Your task to perform on an android device: toggle notification dots Image 0: 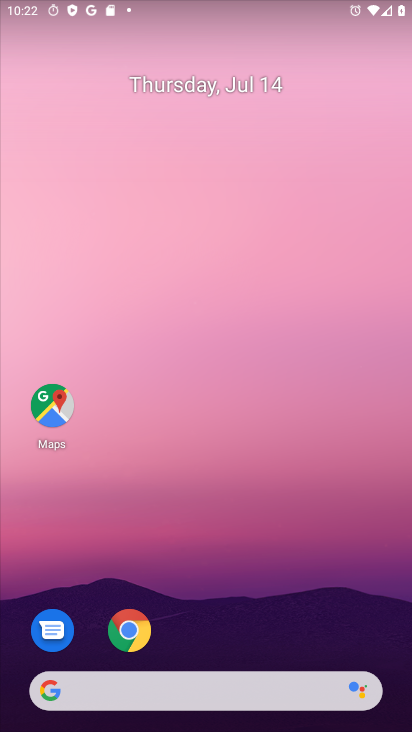
Step 0: drag from (25, 712) to (120, 32)
Your task to perform on an android device: toggle notification dots Image 1: 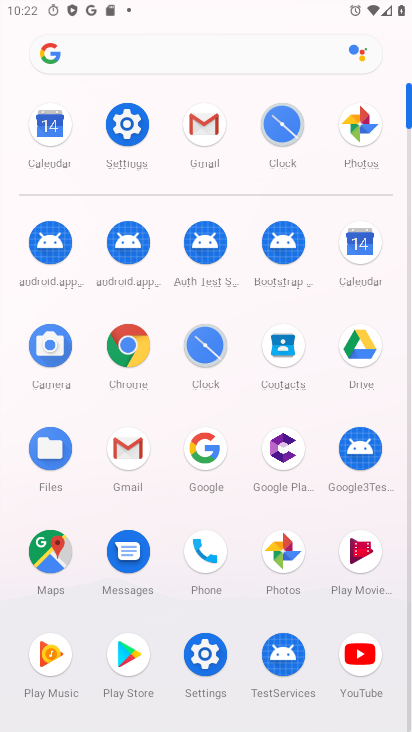
Step 1: click (203, 643)
Your task to perform on an android device: toggle notification dots Image 2: 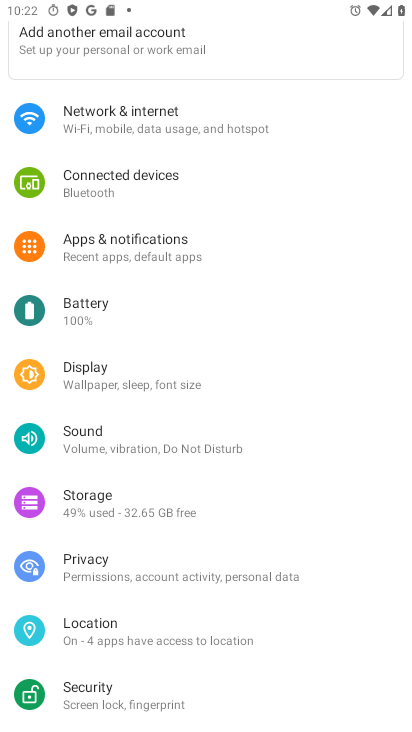
Step 2: click (171, 226)
Your task to perform on an android device: toggle notification dots Image 3: 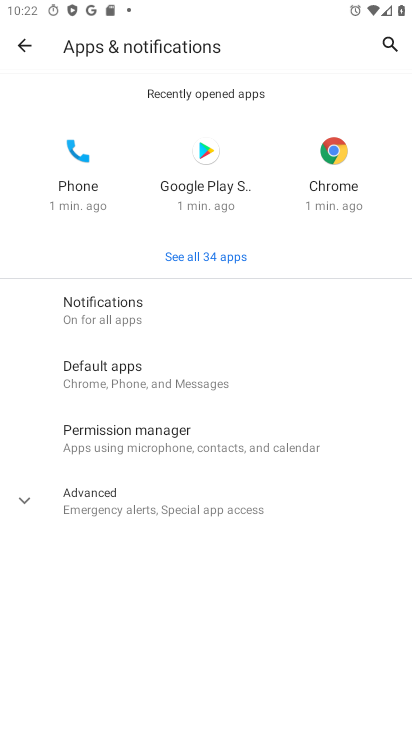
Step 3: click (119, 491)
Your task to perform on an android device: toggle notification dots Image 4: 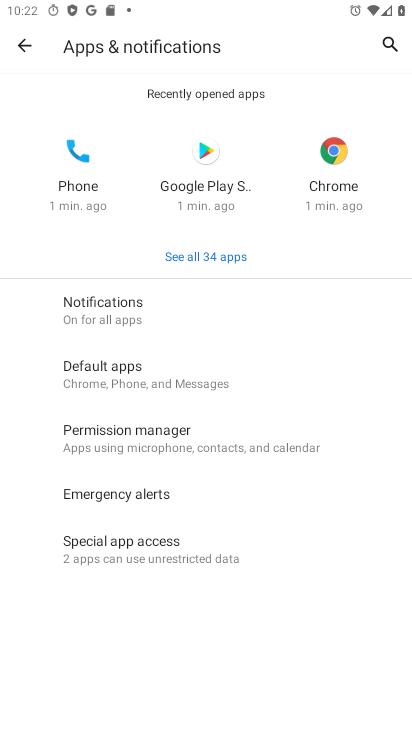
Step 4: click (131, 317)
Your task to perform on an android device: toggle notification dots Image 5: 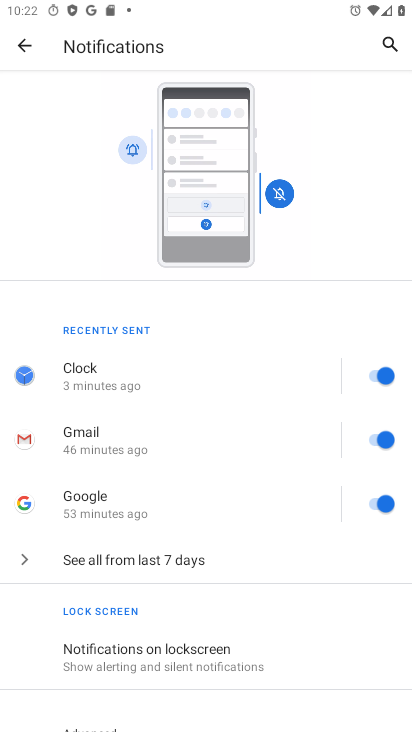
Step 5: click (297, 466)
Your task to perform on an android device: toggle notification dots Image 6: 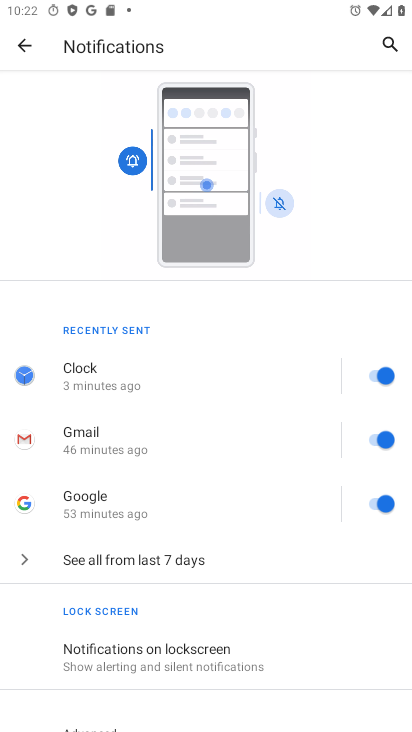
Step 6: drag from (285, 697) to (317, 370)
Your task to perform on an android device: toggle notification dots Image 7: 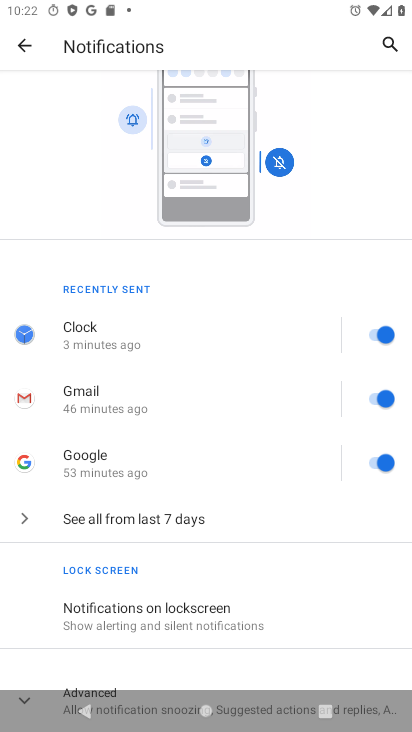
Step 7: drag from (293, 631) to (274, 385)
Your task to perform on an android device: toggle notification dots Image 8: 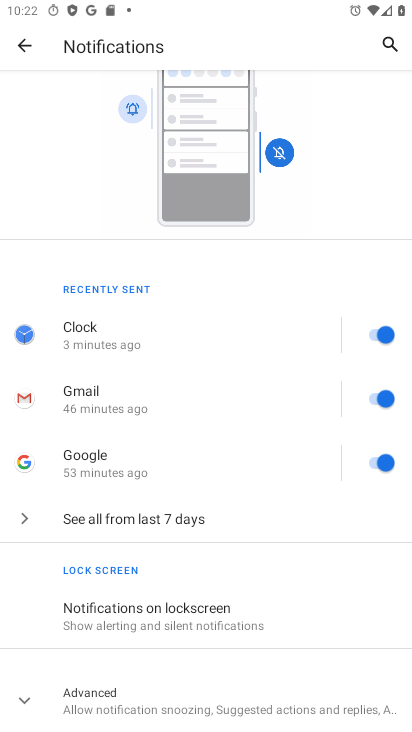
Step 8: drag from (210, 692) to (233, 413)
Your task to perform on an android device: toggle notification dots Image 9: 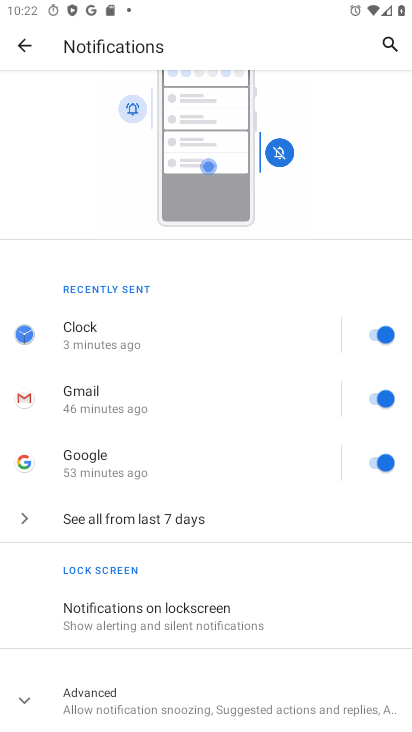
Step 9: drag from (35, 682) to (80, 9)
Your task to perform on an android device: toggle notification dots Image 10: 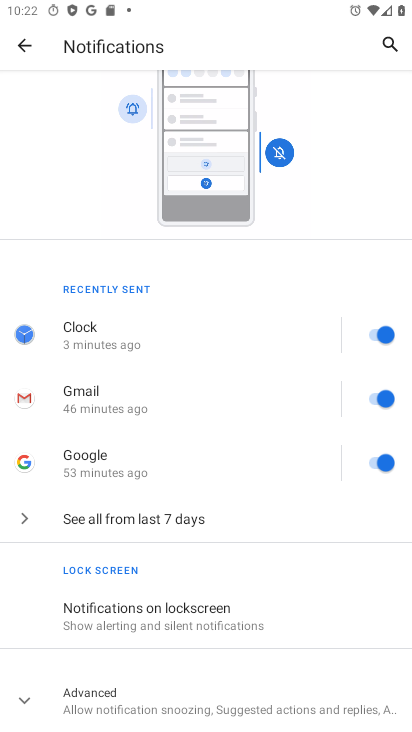
Step 10: drag from (298, 485) to (276, 6)
Your task to perform on an android device: toggle notification dots Image 11: 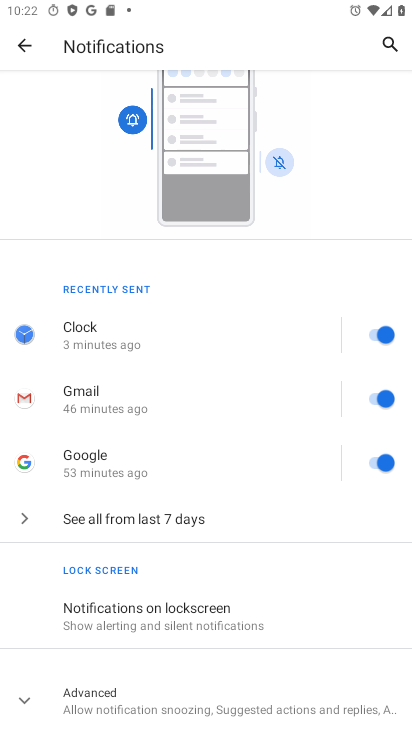
Step 11: drag from (372, 665) to (345, 34)
Your task to perform on an android device: toggle notification dots Image 12: 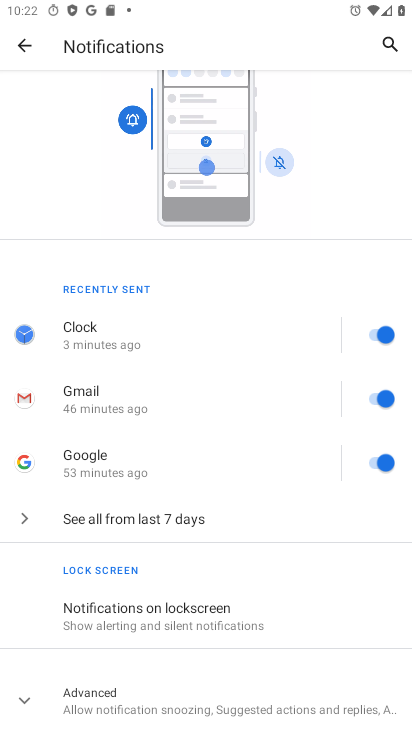
Step 12: click (34, 693)
Your task to perform on an android device: toggle notification dots Image 13: 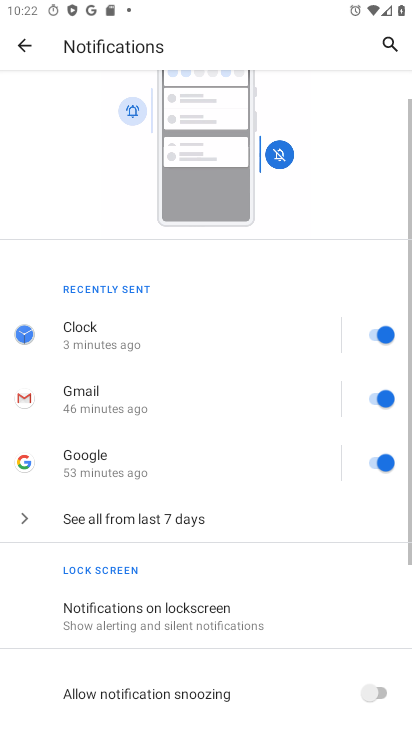
Step 13: drag from (225, 712) to (334, 39)
Your task to perform on an android device: toggle notification dots Image 14: 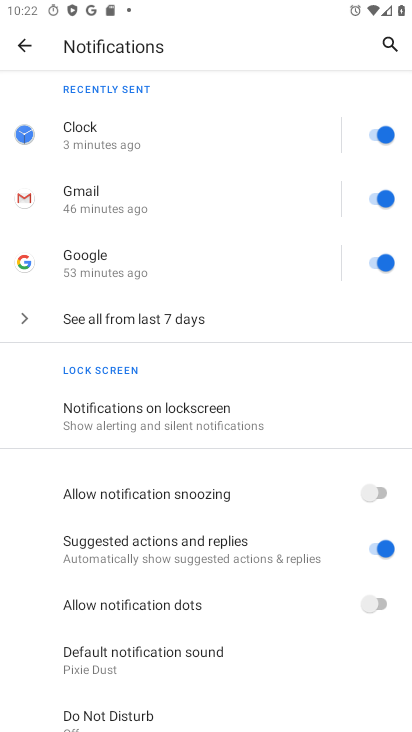
Step 14: click (373, 608)
Your task to perform on an android device: toggle notification dots Image 15: 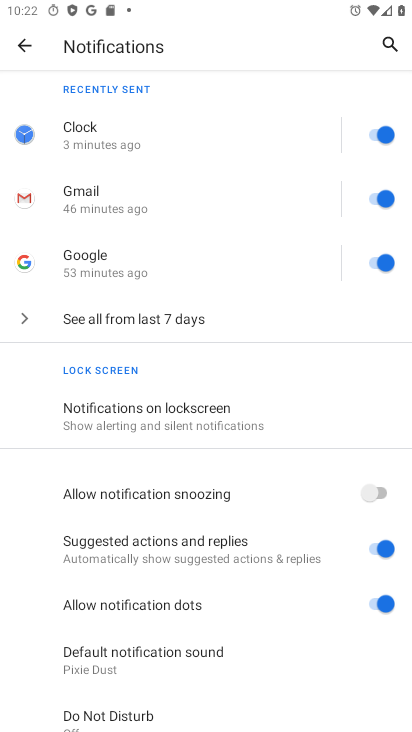
Step 15: task complete